Your task to perform on an android device: Show the shopping cart on costco. Add "dell xps" to the cart on costco, then select checkout. Image 0: 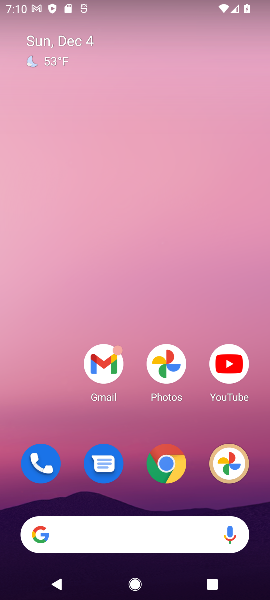
Step 0: click (150, 542)
Your task to perform on an android device: Show the shopping cart on costco. Add "dell xps" to the cart on costco, then select checkout. Image 1: 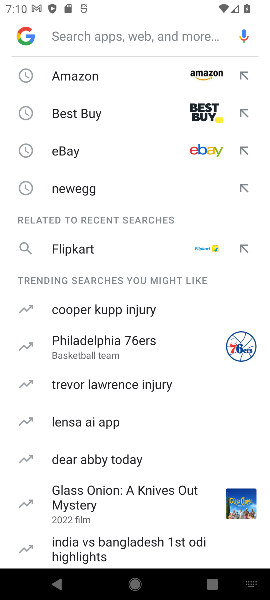
Step 1: type "costco.com"
Your task to perform on an android device: Show the shopping cart on costco. Add "dell xps" to the cart on costco, then select checkout. Image 2: 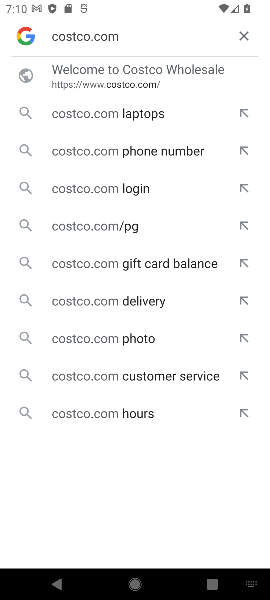
Step 2: click (131, 81)
Your task to perform on an android device: Show the shopping cart on costco. Add "dell xps" to the cart on costco, then select checkout. Image 3: 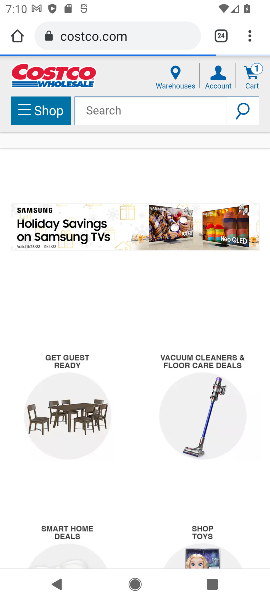
Step 3: click (128, 104)
Your task to perform on an android device: Show the shopping cart on costco. Add "dell xps" to the cart on costco, then select checkout. Image 4: 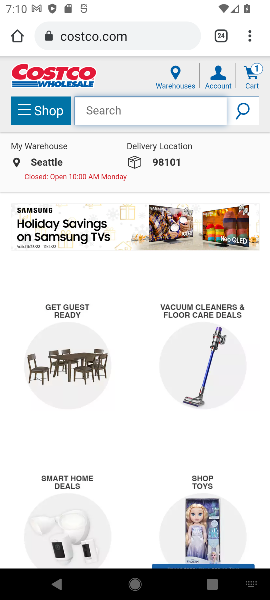
Step 4: type "dell xps"
Your task to perform on an android device: Show the shopping cart on costco. Add "dell xps" to the cart on costco, then select checkout. Image 5: 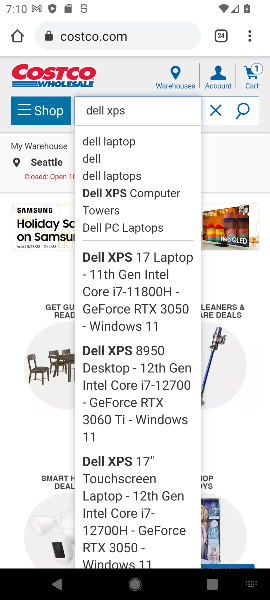
Step 5: click (250, 115)
Your task to perform on an android device: Show the shopping cart on costco. Add "dell xps" to the cart on costco, then select checkout. Image 6: 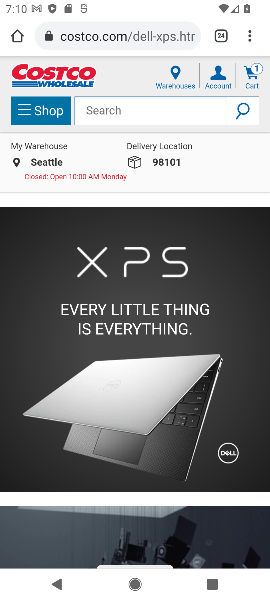
Step 6: task complete